Your task to perform on an android device: turn on data saver in the chrome app Image 0: 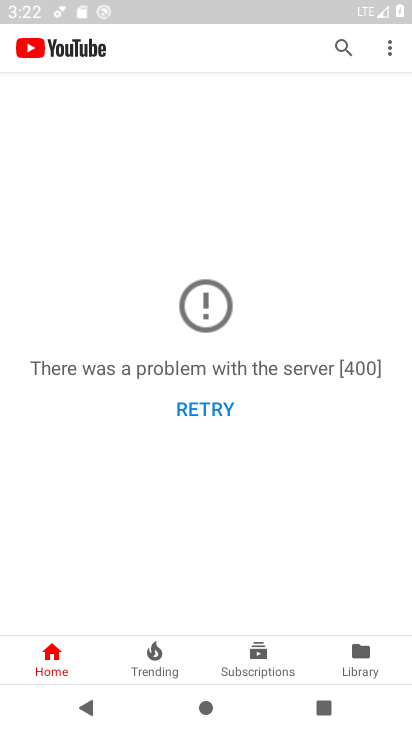
Step 0: press home button
Your task to perform on an android device: turn on data saver in the chrome app Image 1: 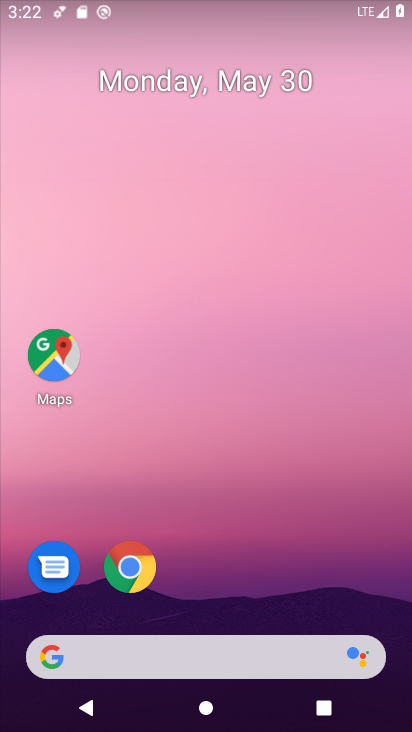
Step 1: click (125, 565)
Your task to perform on an android device: turn on data saver in the chrome app Image 2: 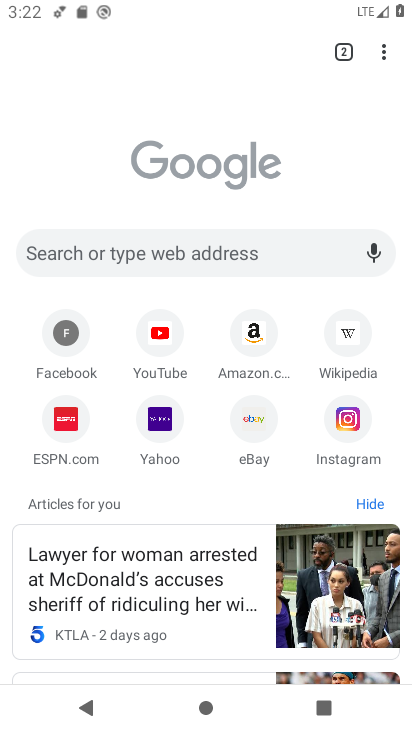
Step 2: click (383, 53)
Your task to perform on an android device: turn on data saver in the chrome app Image 3: 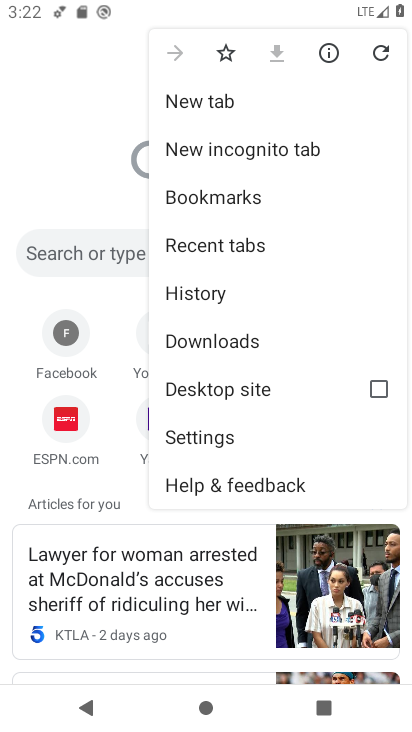
Step 3: click (201, 434)
Your task to perform on an android device: turn on data saver in the chrome app Image 4: 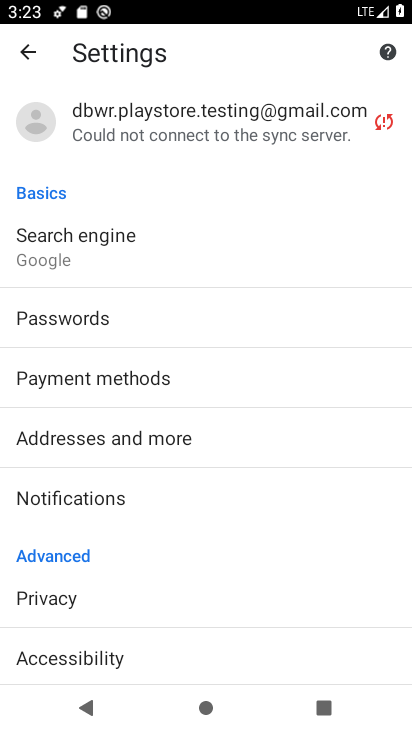
Step 4: drag from (174, 632) to (198, 236)
Your task to perform on an android device: turn on data saver in the chrome app Image 5: 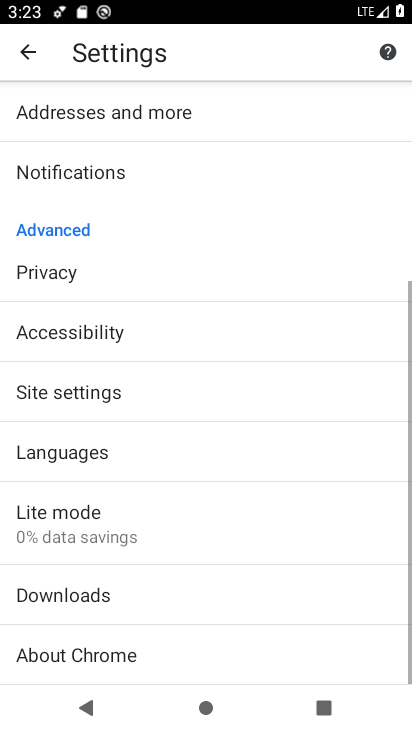
Step 5: click (105, 541)
Your task to perform on an android device: turn on data saver in the chrome app Image 6: 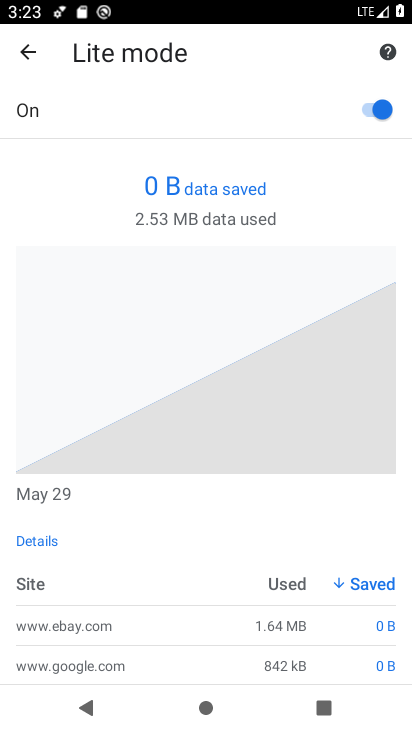
Step 6: task complete